Your task to perform on an android device: Open Google Maps and go to "Timeline" Image 0: 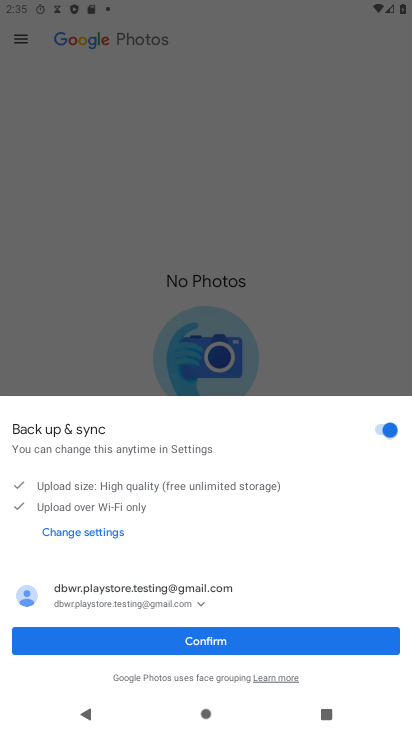
Step 0: press home button
Your task to perform on an android device: Open Google Maps and go to "Timeline" Image 1: 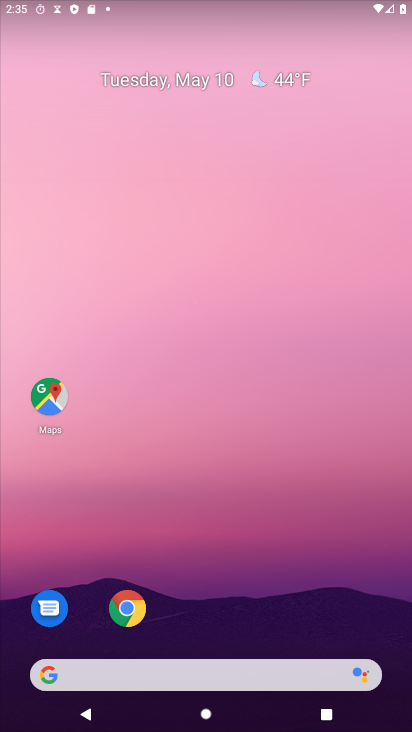
Step 1: click (52, 395)
Your task to perform on an android device: Open Google Maps and go to "Timeline" Image 2: 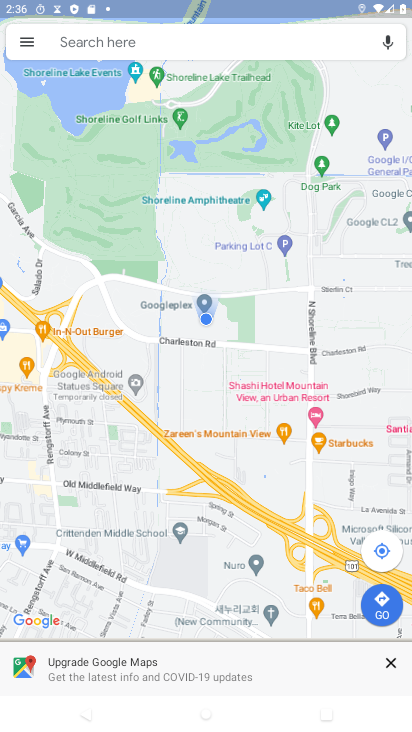
Step 2: click (25, 46)
Your task to perform on an android device: Open Google Maps and go to "Timeline" Image 3: 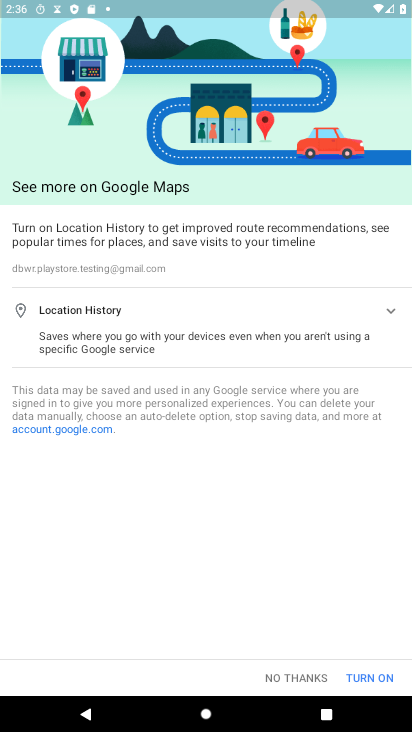
Step 3: click (299, 670)
Your task to perform on an android device: Open Google Maps and go to "Timeline" Image 4: 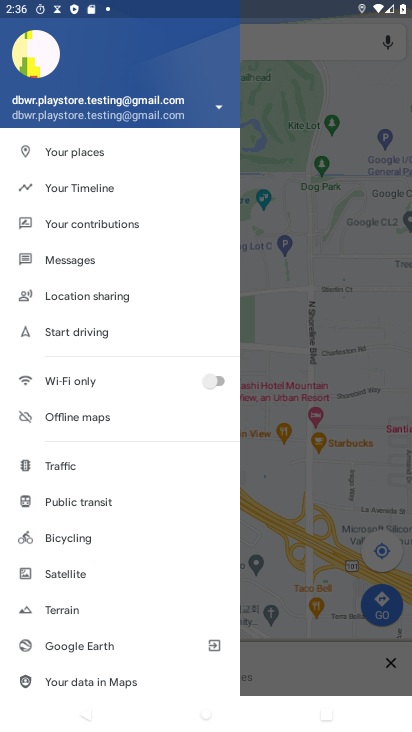
Step 4: click (45, 192)
Your task to perform on an android device: Open Google Maps and go to "Timeline" Image 5: 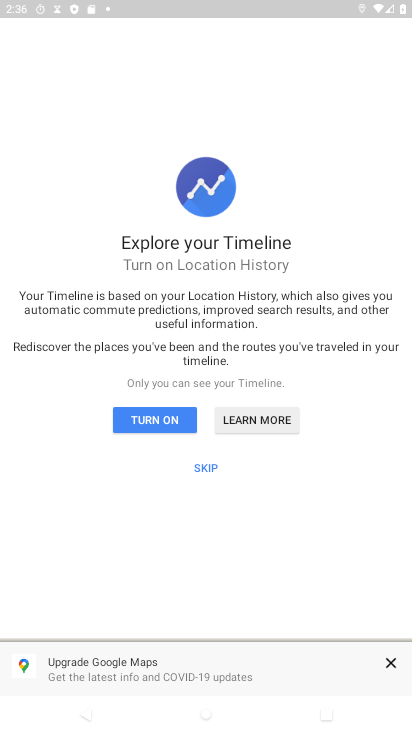
Step 5: click (207, 467)
Your task to perform on an android device: Open Google Maps and go to "Timeline" Image 6: 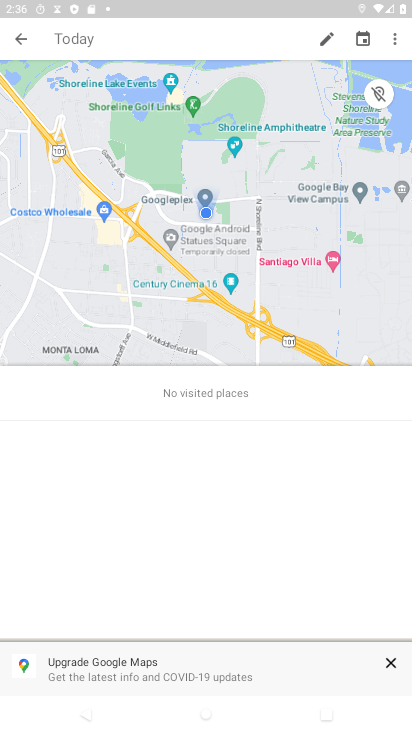
Step 6: task complete